Your task to perform on an android device: find photos in the google photos app Image 0: 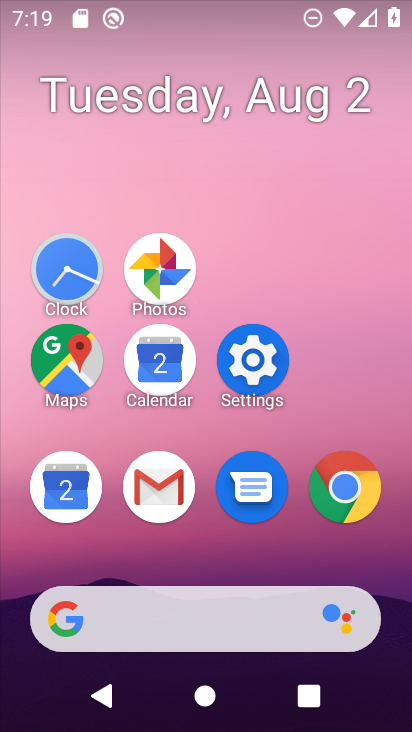
Step 0: click (166, 272)
Your task to perform on an android device: find photos in the google photos app Image 1: 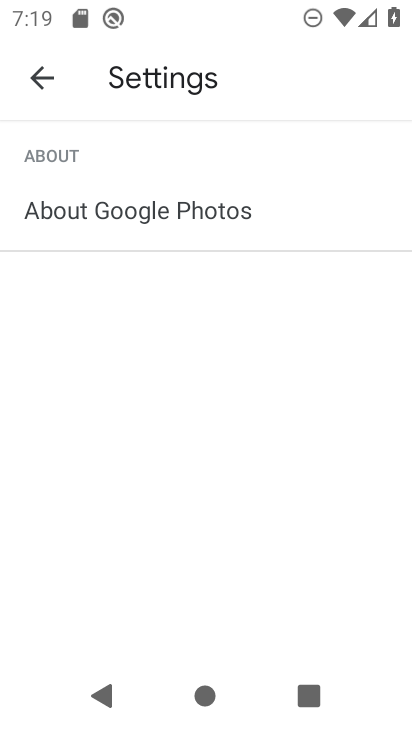
Step 1: click (37, 80)
Your task to perform on an android device: find photos in the google photos app Image 2: 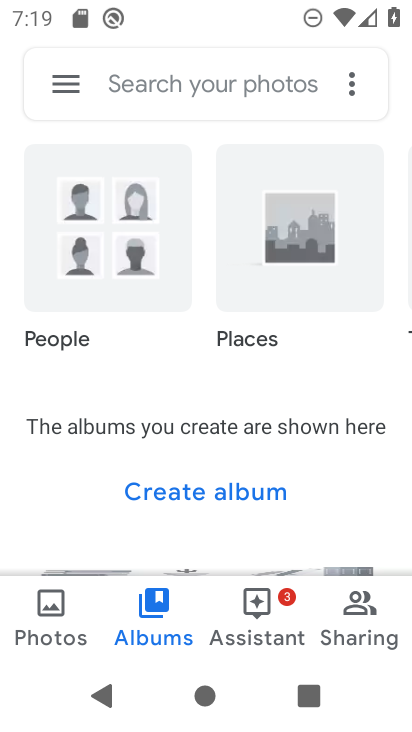
Step 2: click (38, 612)
Your task to perform on an android device: find photos in the google photos app Image 3: 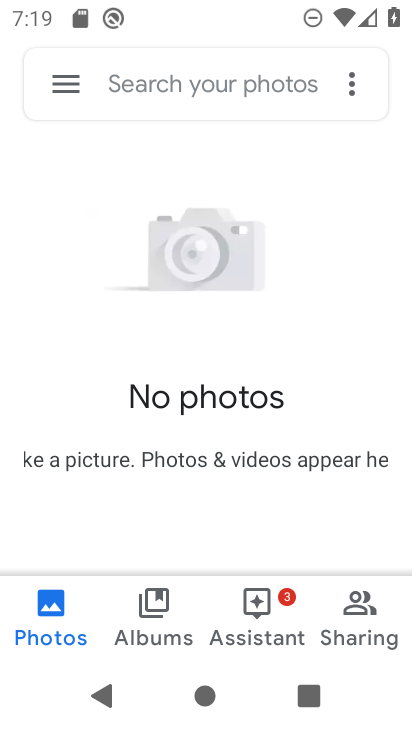
Step 3: click (173, 86)
Your task to perform on an android device: find photos in the google photos app Image 4: 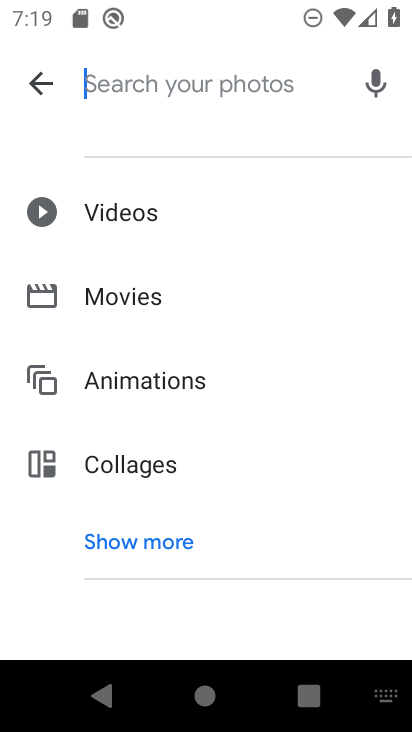
Step 4: task complete